Your task to perform on an android device: check battery use Image 0: 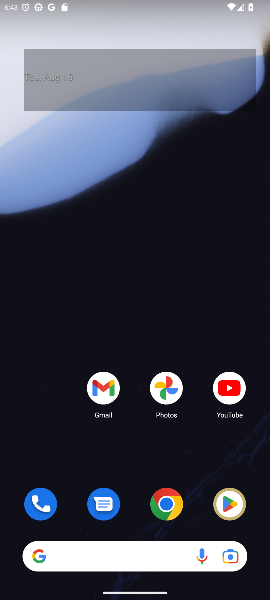
Step 0: drag from (17, 556) to (221, 168)
Your task to perform on an android device: check battery use Image 1: 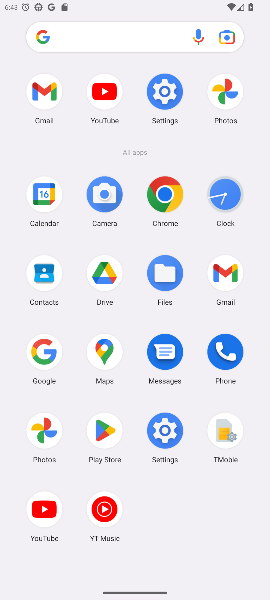
Step 1: click (162, 430)
Your task to perform on an android device: check battery use Image 2: 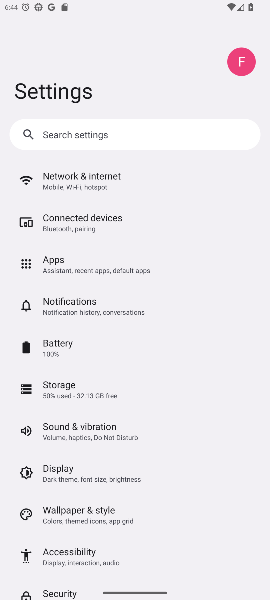
Step 2: click (45, 342)
Your task to perform on an android device: check battery use Image 3: 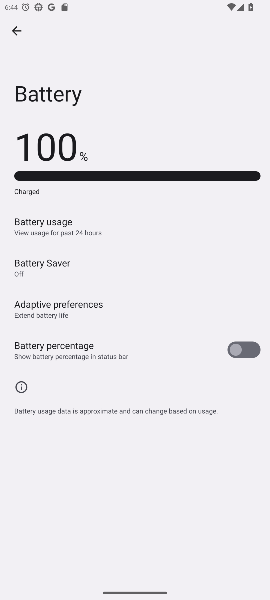
Step 3: task complete